Your task to perform on an android device: turn off airplane mode Image 0: 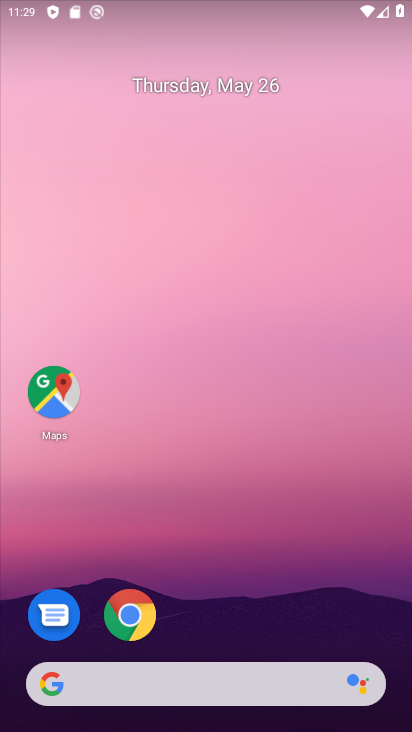
Step 0: drag from (263, 621) to (196, 209)
Your task to perform on an android device: turn off airplane mode Image 1: 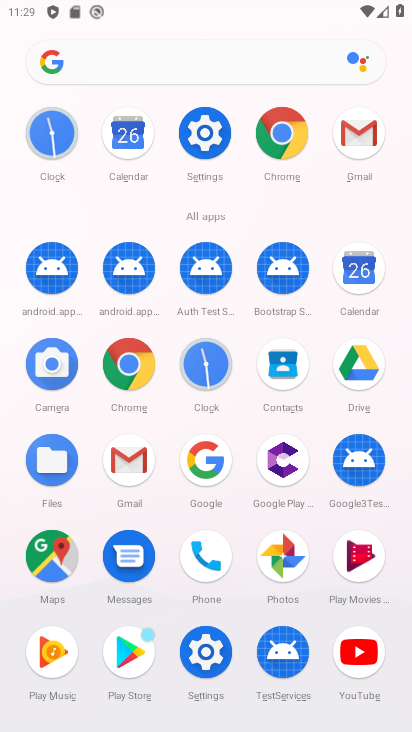
Step 1: click (221, 136)
Your task to perform on an android device: turn off airplane mode Image 2: 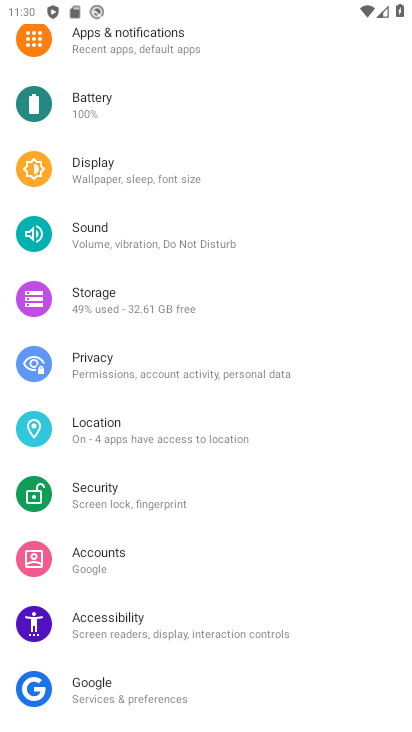
Step 2: drag from (198, 83) to (173, 539)
Your task to perform on an android device: turn off airplane mode Image 3: 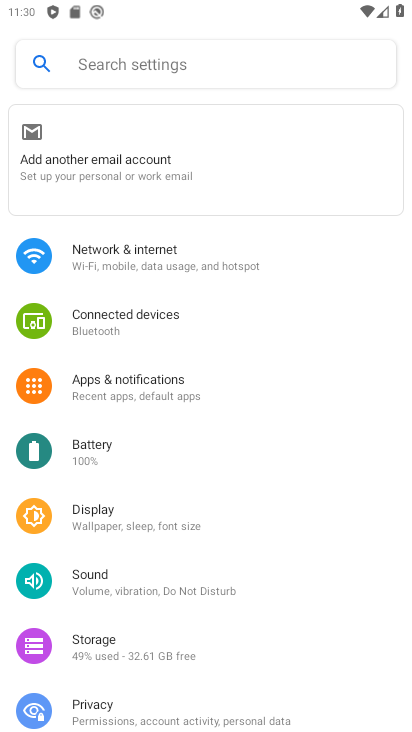
Step 3: click (197, 268)
Your task to perform on an android device: turn off airplane mode Image 4: 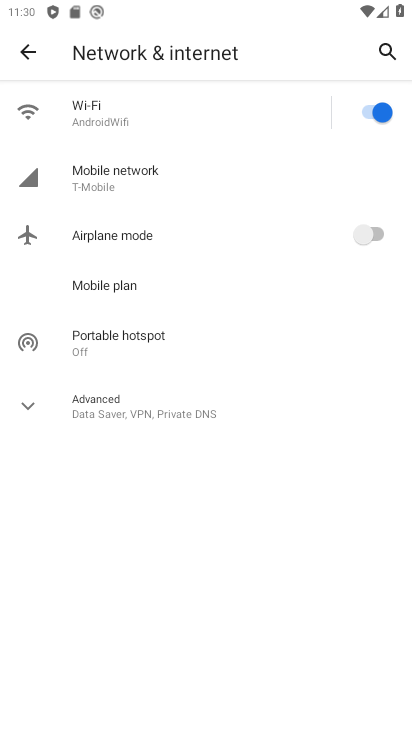
Step 4: task complete